Your task to perform on an android device: add a contact in the contacts app Image 0: 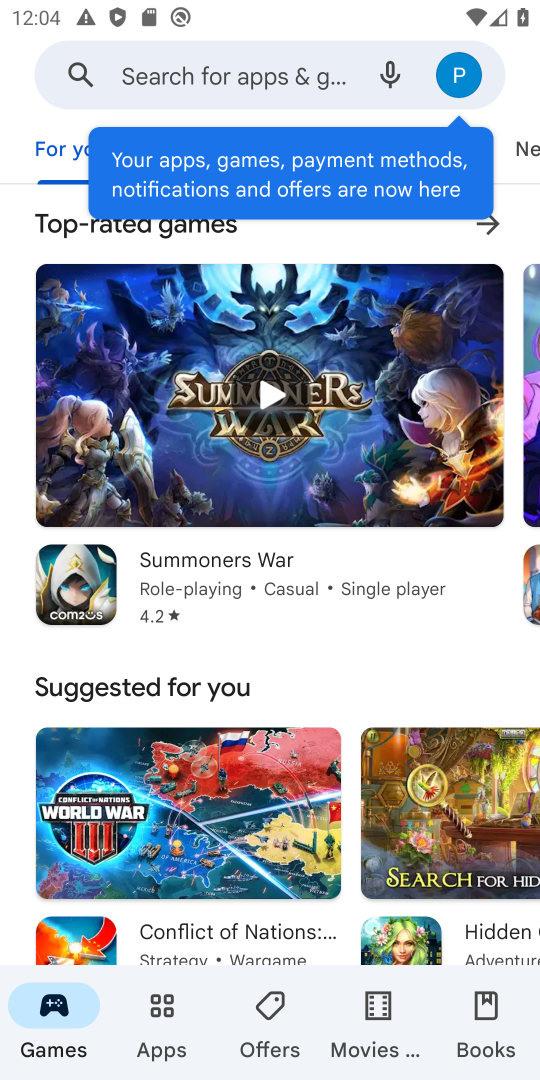
Step 0: press home button
Your task to perform on an android device: add a contact in the contacts app Image 1: 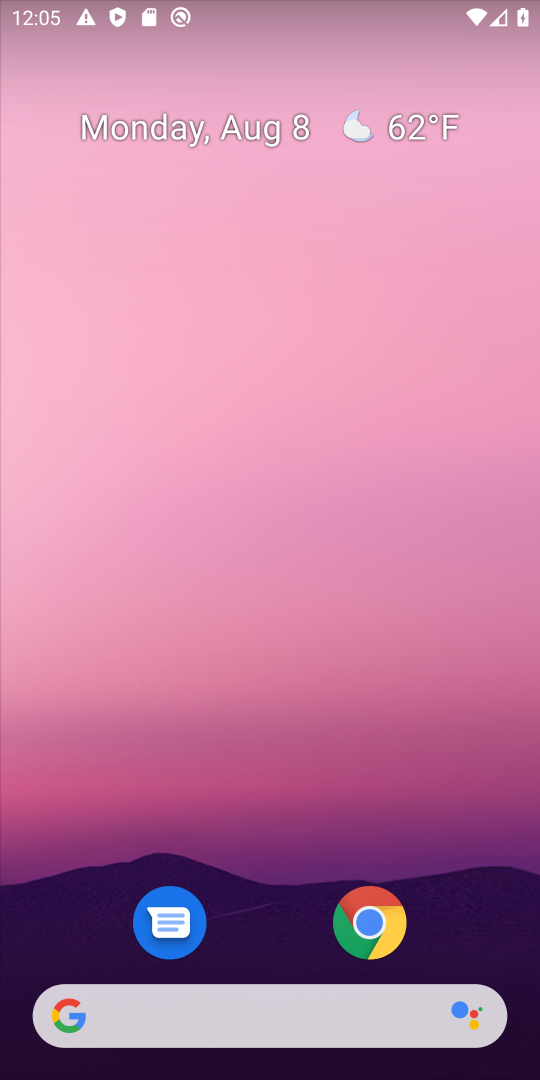
Step 1: drag from (457, 929) to (362, 383)
Your task to perform on an android device: add a contact in the contacts app Image 2: 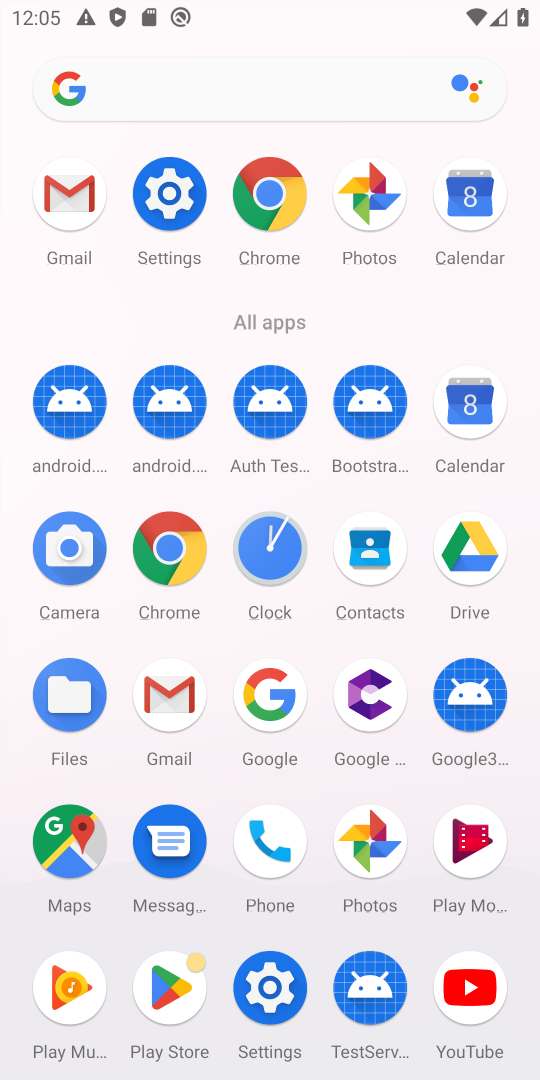
Step 2: click (373, 554)
Your task to perform on an android device: add a contact in the contacts app Image 3: 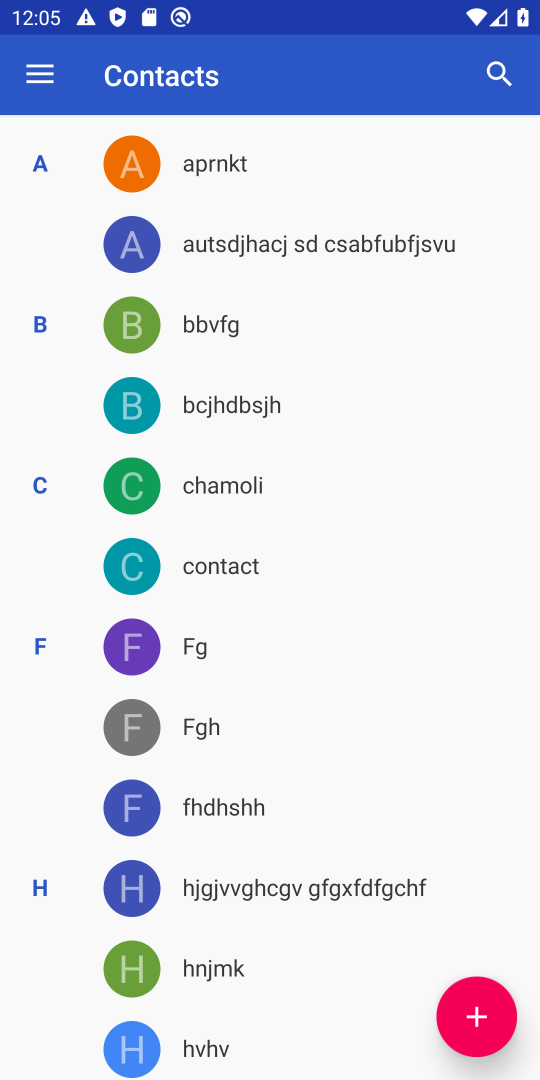
Step 3: click (462, 1009)
Your task to perform on an android device: add a contact in the contacts app Image 4: 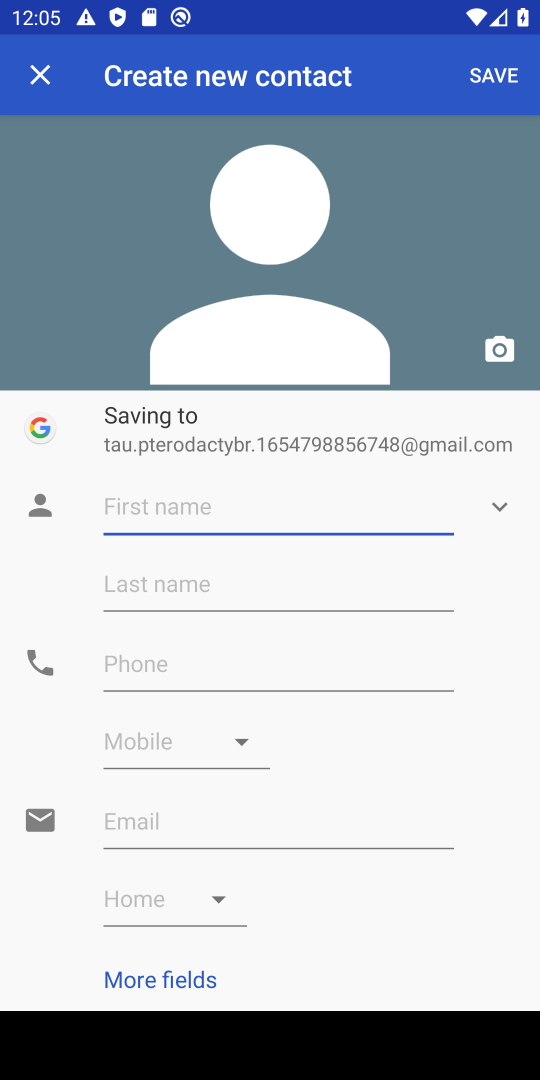
Step 4: type "opopop"
Your task to perform on an android device: add a contact in the contacts app Image 5: 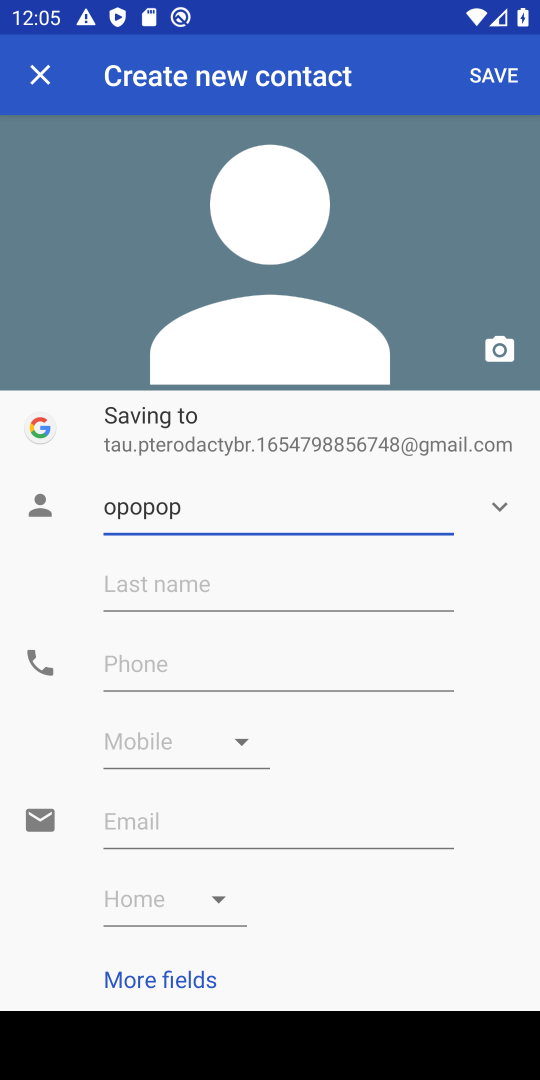
Step 5: click (227, 660)
Your task to perform on an android device: add a contact in the contacts app Image 6: 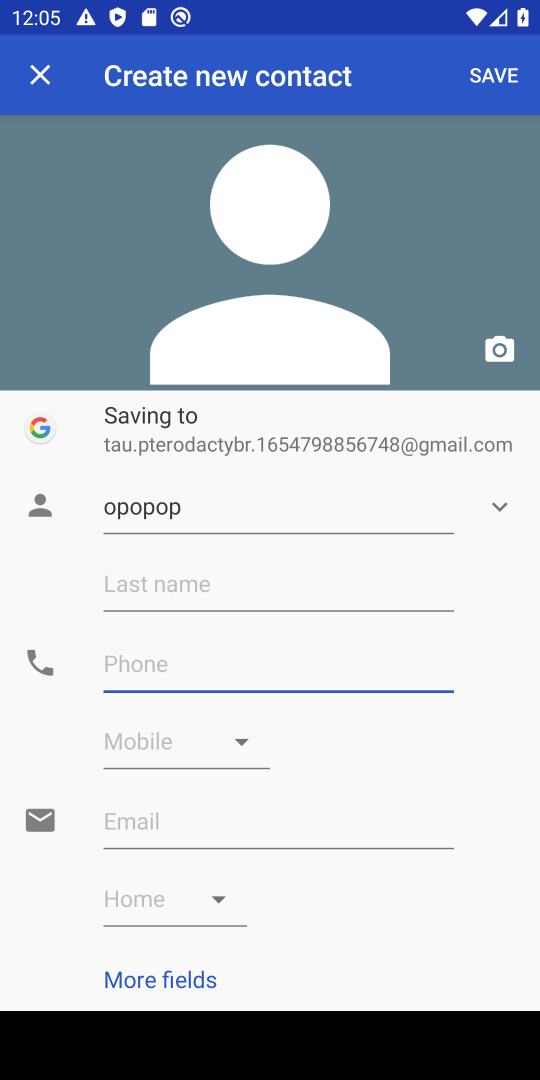
Step 6: type "9998887777"
Your task to perform on an android device: add a contact in the contacts app Image 7: 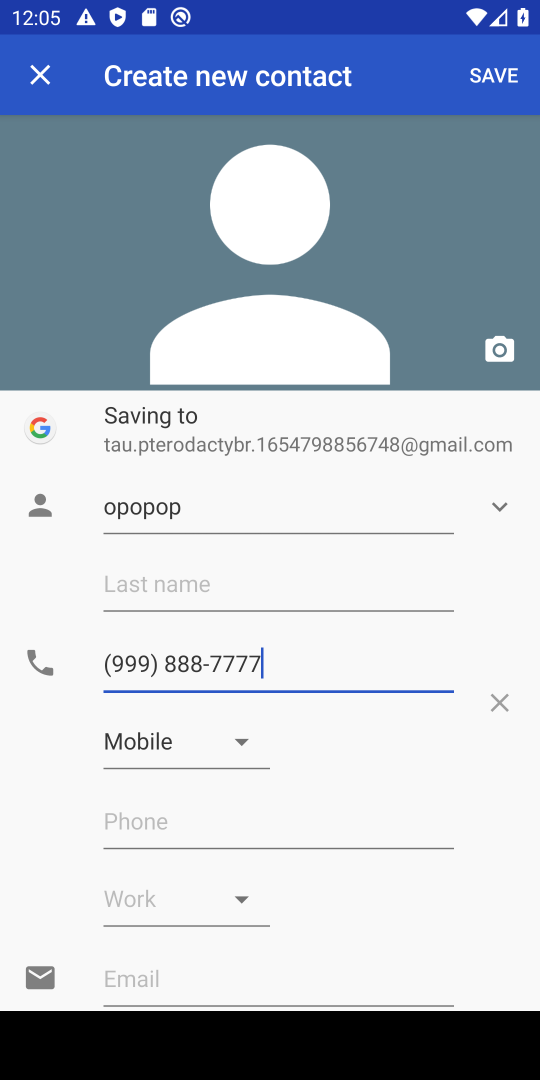
Step 7: click (481, 80)
Your task to perform on an android device: add a contact in the contacts app Image 8: 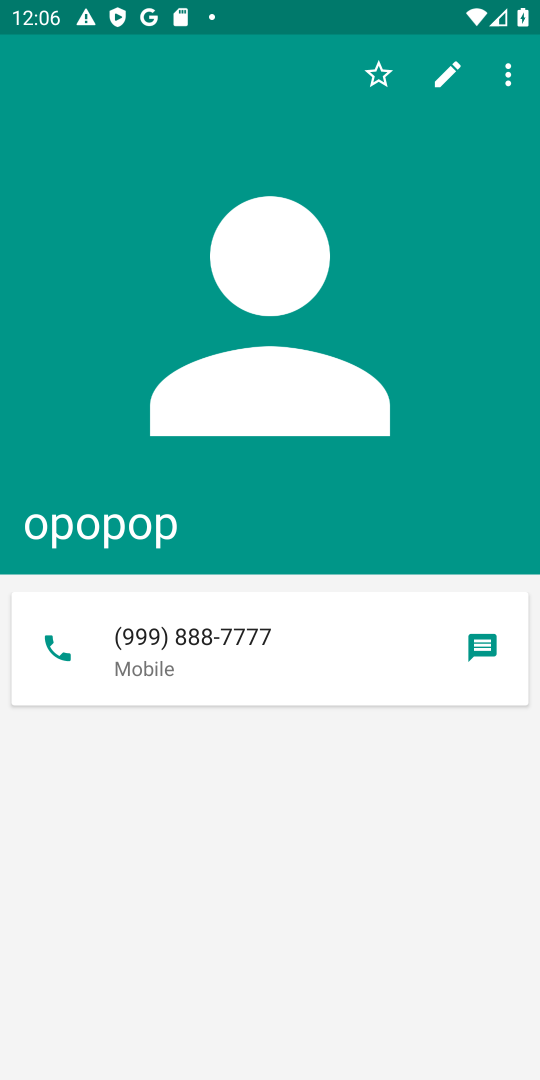
Step 8: task complete